Your task to perform on an android device: toggle notifications settings in the gmail app Image 0: 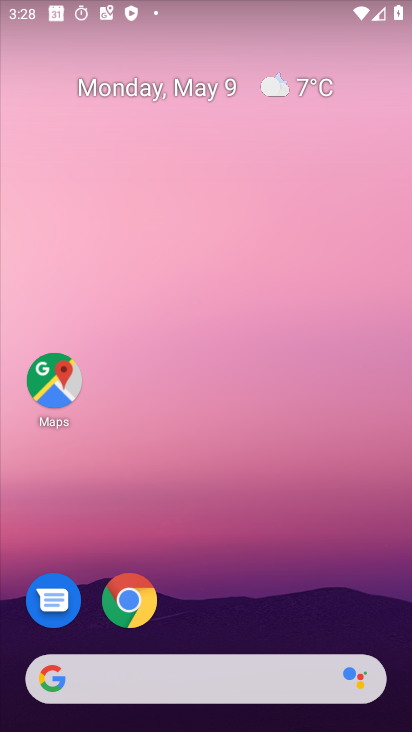
Step 0: drag from (264, 594) to (228, 145)
Your task to perform on an android device: toggle notifications settings in the gmail app Image 1: 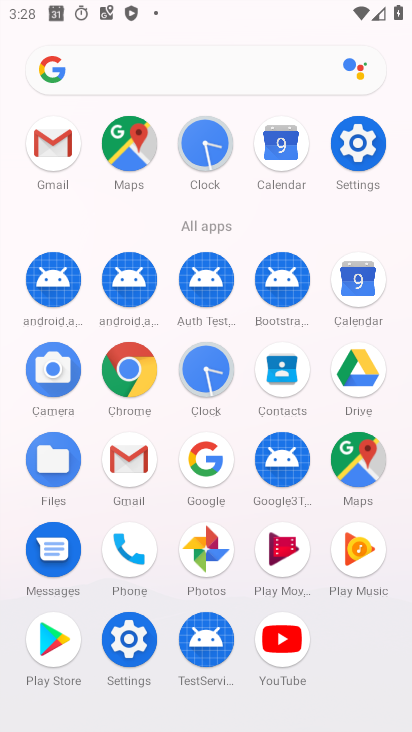
Step 1: click (43, 147)
Your task to perform on an android device: toggle notifications settings in the gmail app Image 2: 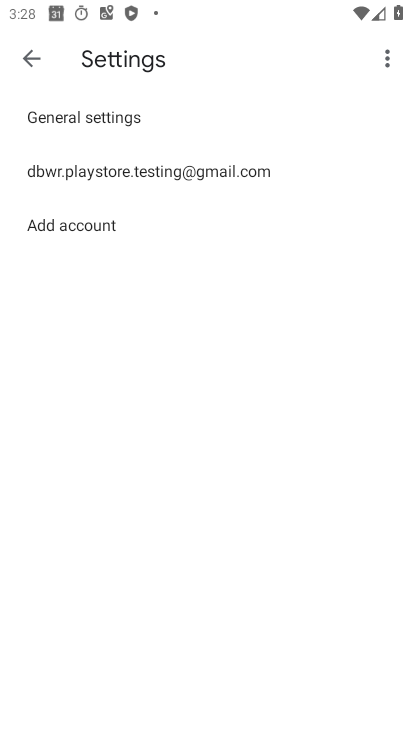
Step 2: click (196, 164)
Your task to perform on an android device: toggle notifications settings in the gmail app Image 3: 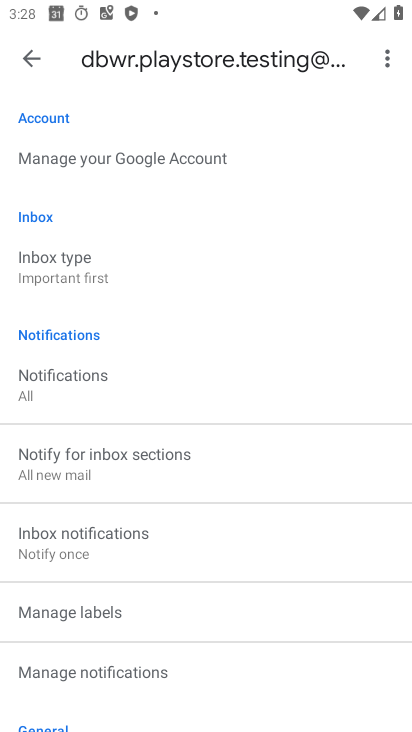
Step 3: drag from (122, 241) to (180, 537)
Your task to perform on an android device: toggle notifications settings in the gmail app Image 4: 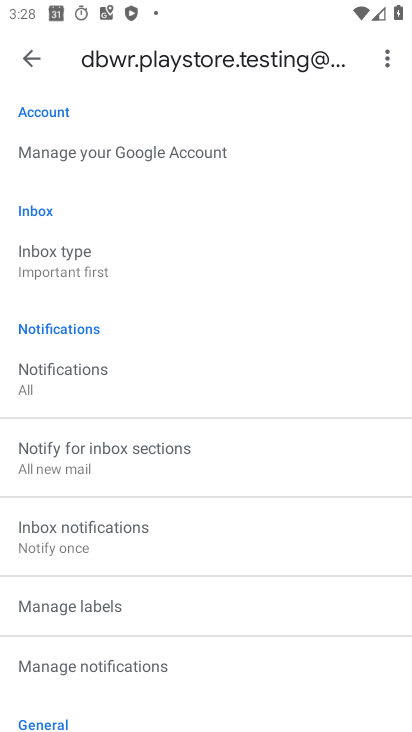
Step 4: click (132, 661)
Your task to perform on an android device: toggle notifications settings in the gmail app Image 5: 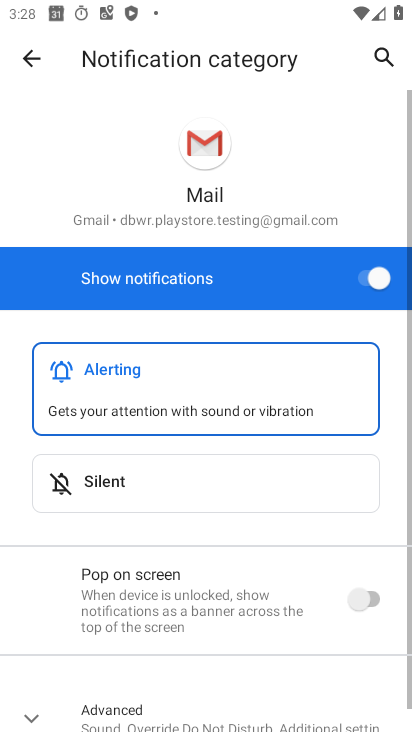
Step 5: click (353, 259)
Your task to perform on an android device: toggle notifications settings in the gmail app Image 6: 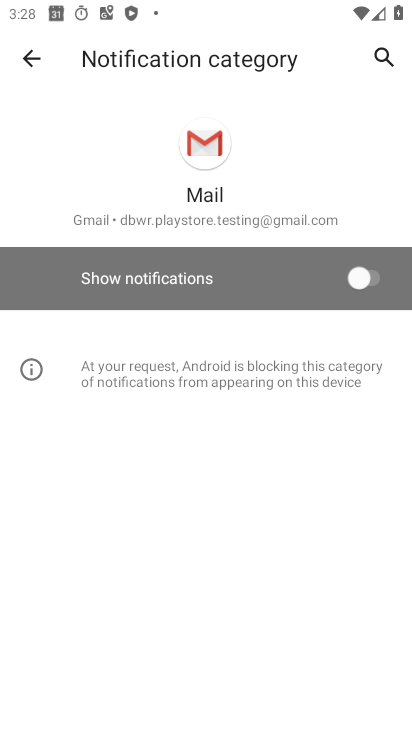
Step 6: task complete